Your task to perform on an android device: Go to internet settings Image 0: 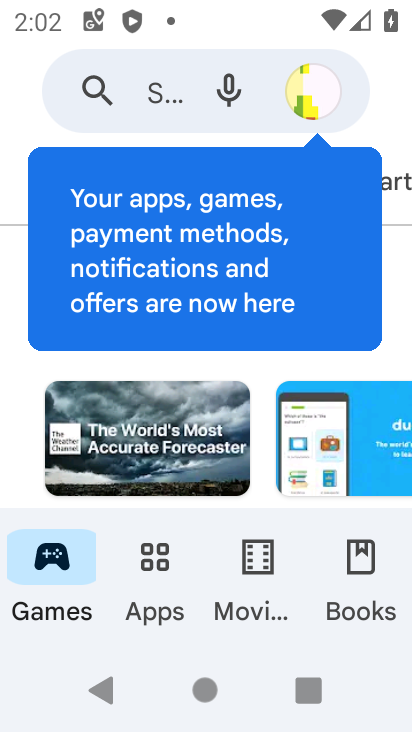
Step 0: press home button
Your task to perform on an android device: Go to internet settings Image 1: 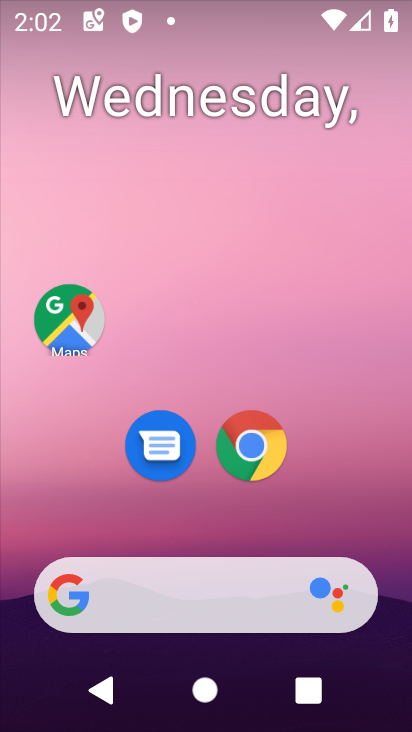
Step 1: drag from (201, 540) to (245, 179)
Your task to perform on an android device: Go to internet settings Image 2: 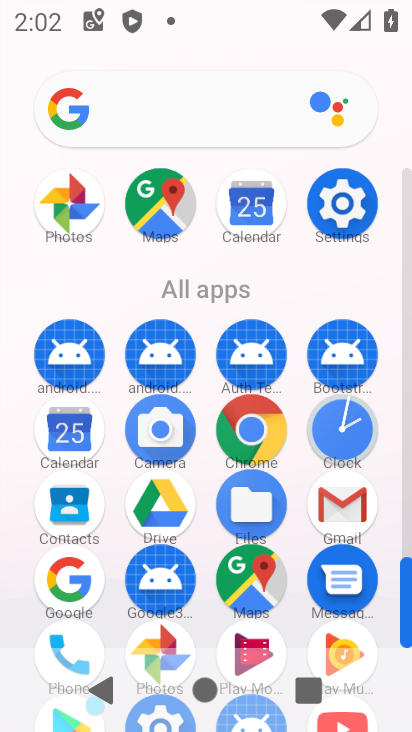
Step 2: click (339, 225)
Your task to perform on an android device: Go to internet settings Image 3: 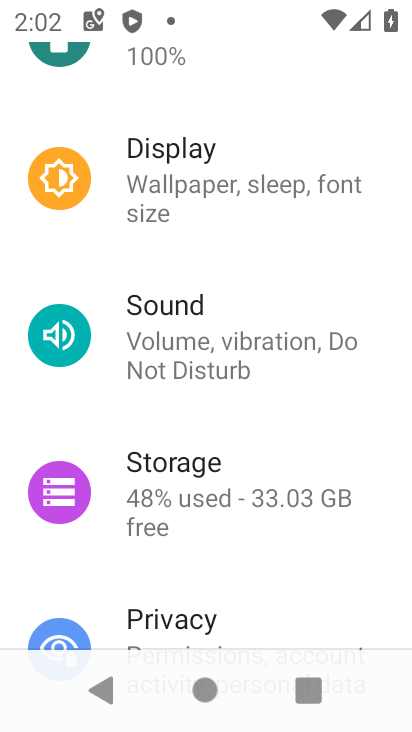
Step 3: drag from (231, 196) to (235, 579)
Your task to perform on an android device: Go to internet settings Image 4: 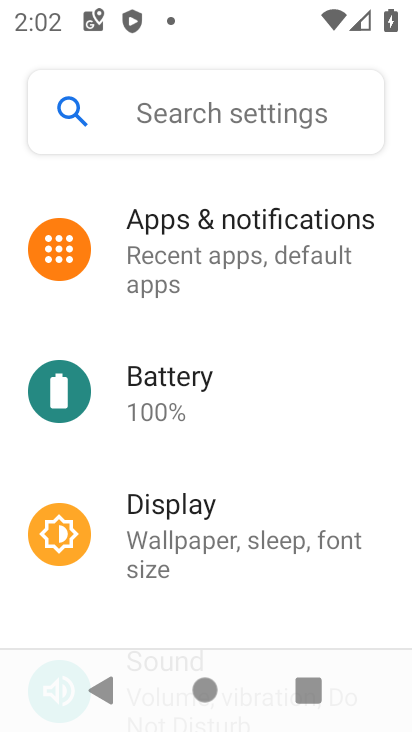
Step 4: drag from (238, 276) to (244, 530)
Your task to perform on an android device: Go to internet settings Image 5: 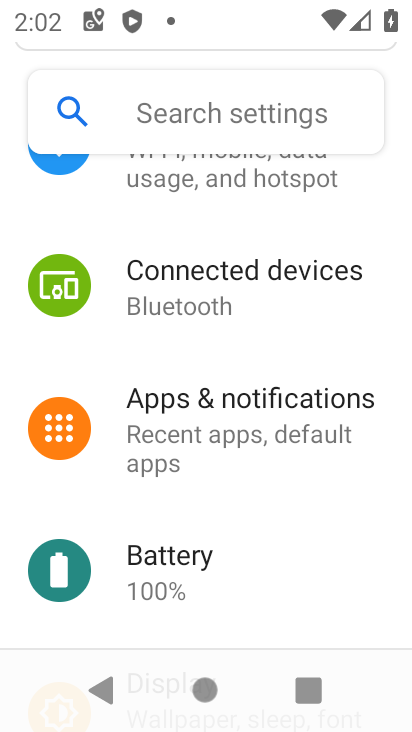
Step 5: drag from (224, 256) to (230, 532)
Your task to perform on an android device: Go to internet settings Image 6: 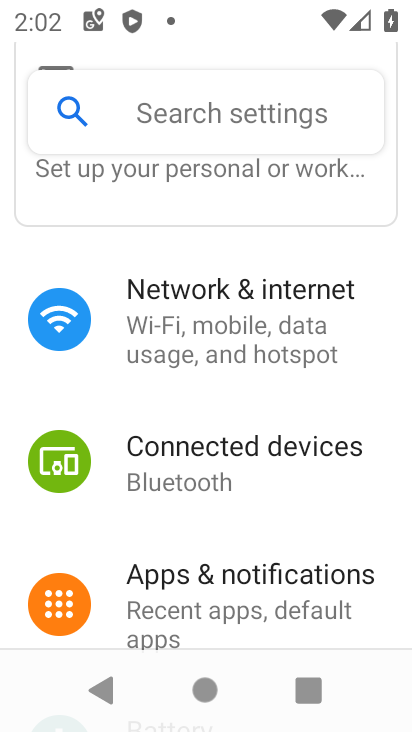
Step 6: click (203, 352)
Your task to perform on an android device: Go to internet settings Image 7: 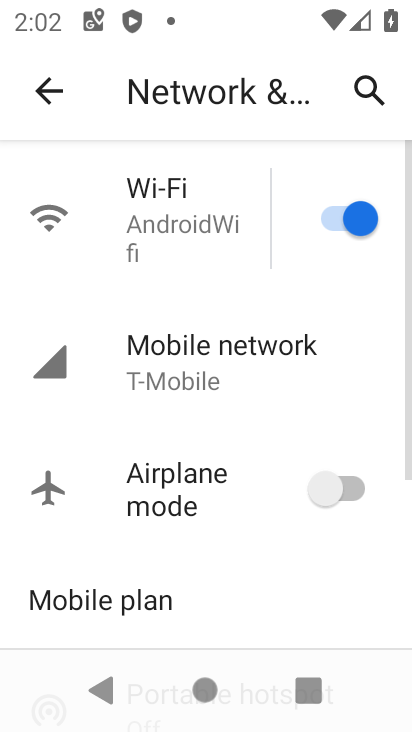
Step 7: click (203, 352)
Your task to perform on an android device: Go to internet settings Image 8: 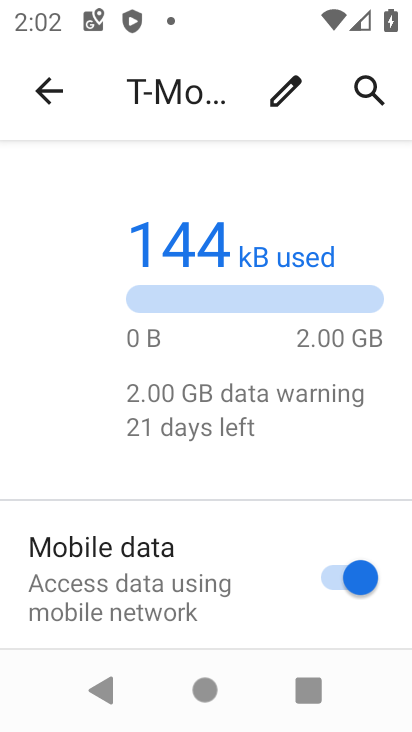
Step 8: task complete